Your task to perform on an android device: Open CNN.com Image 0: 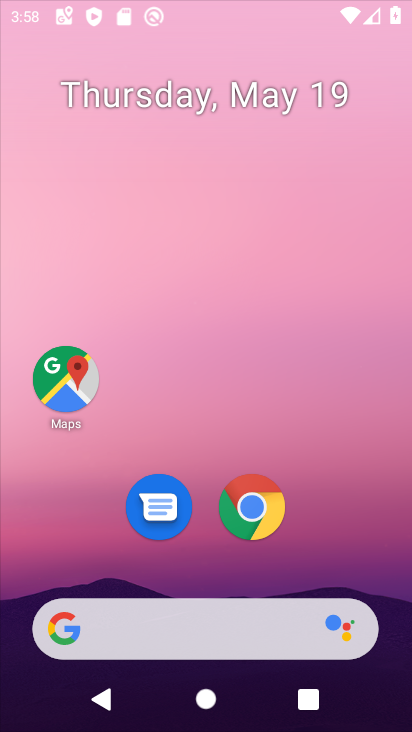
Step 0: click (243, 510)
Your task to perform on an android device: Open CNN.com Image 1: 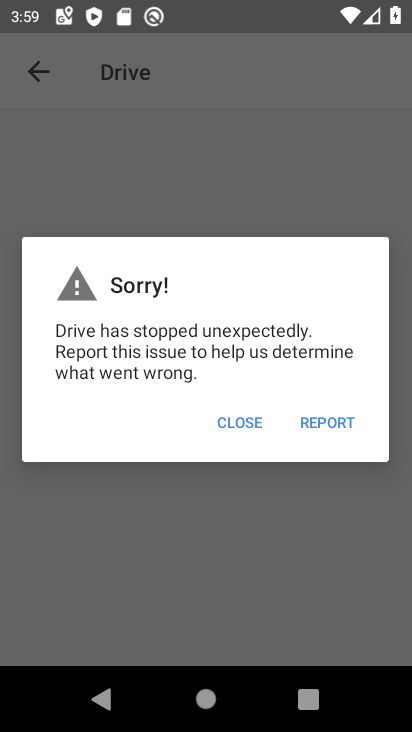
Step 1: press home button
Your task to perform on an android device: Open CNN.com Image 2: 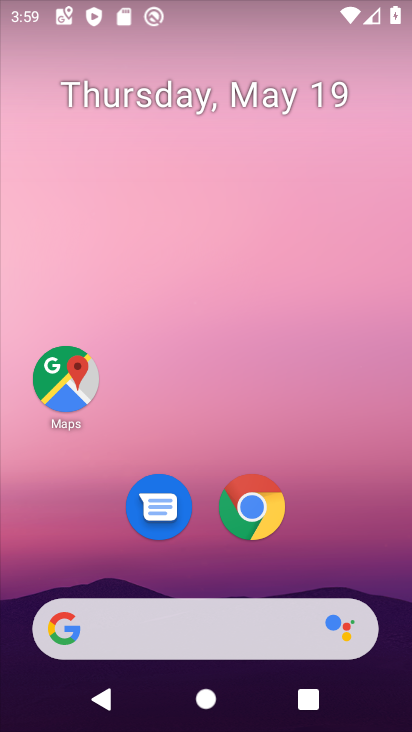
Step 2: click (244, 507)
Your task to perform on an android device: Open CNN.com Image 3: 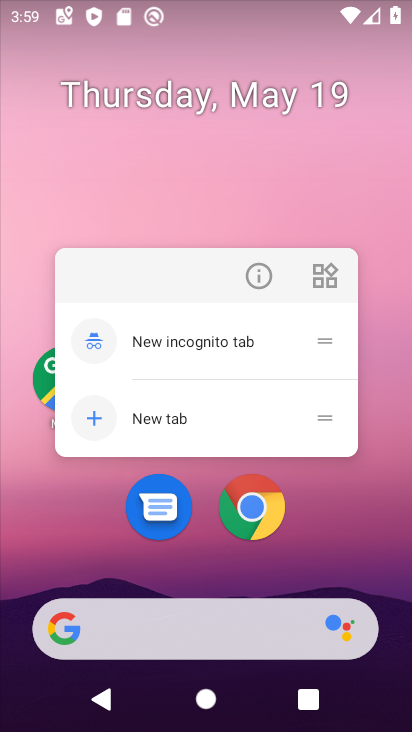
Step 3: click (241, 500)
Your task to perform on an android device: Open CNN.com Image 4: 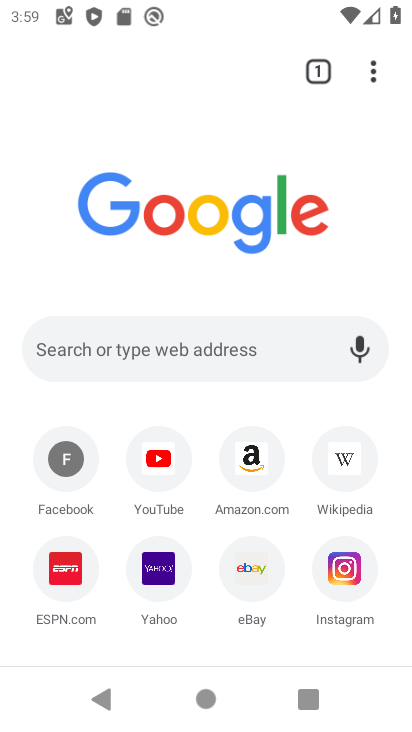
Step 4: click (174, 341)
Your task to perform on an android device: Open CNN.com Image 5: 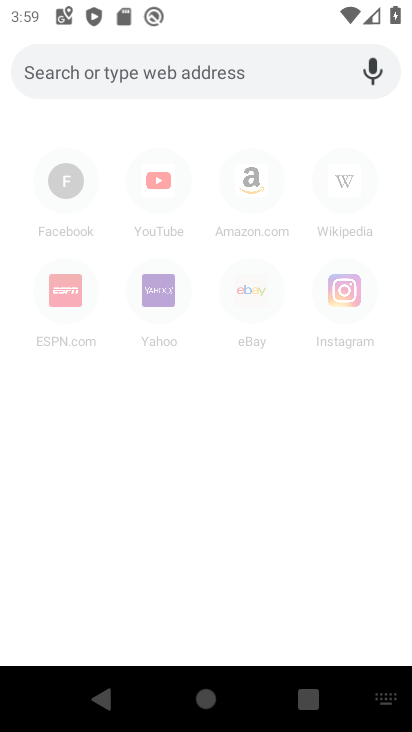
Step 5: type " CNN.com"
Your task to perform on an android device: Open CNN.com Image 6: 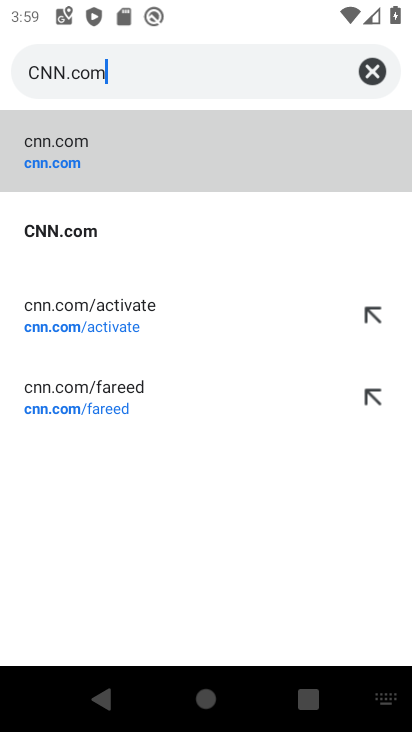
Step 6: click (59, 225)
Your task to perform on an android device: Open CNN.com Image 7: 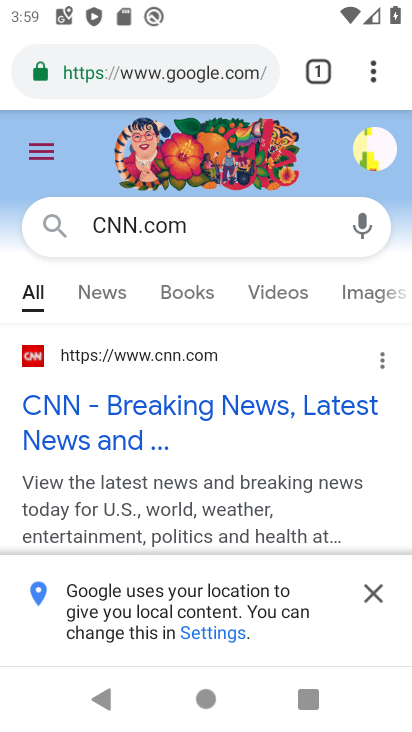
Step 7: task complete